Your task to perform on an android device: toggle pop-ups in chrome Image 0: 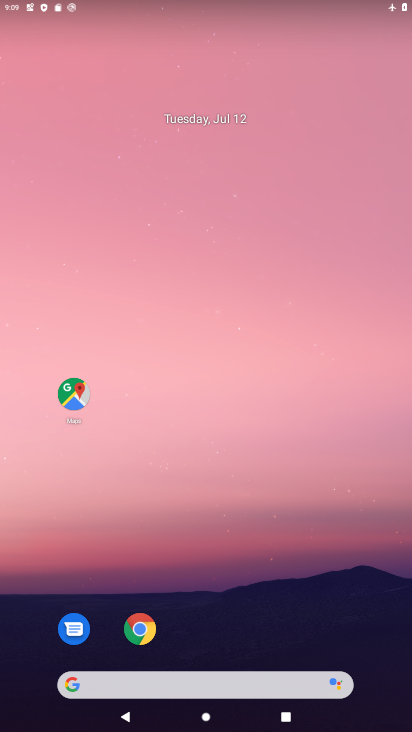
Step 0: drag from (179, 631) to (184, 192)
Your task to perform on an android device: toggle pop-ups in chrome Image 1: 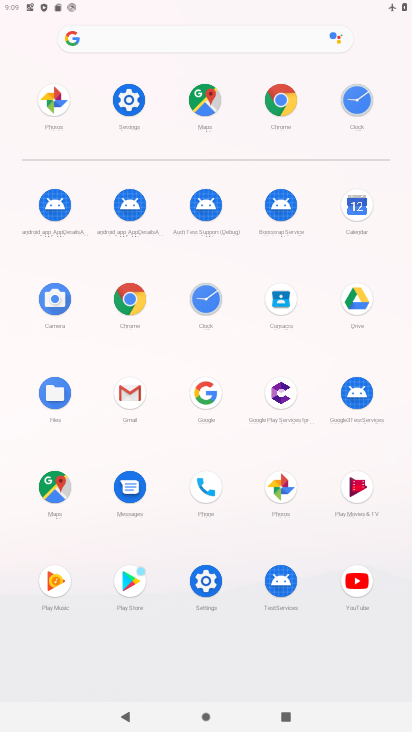
Step 1: click (114, 93)
Your task to perform on an android device: toggle pop-ups in chrome Image 2: 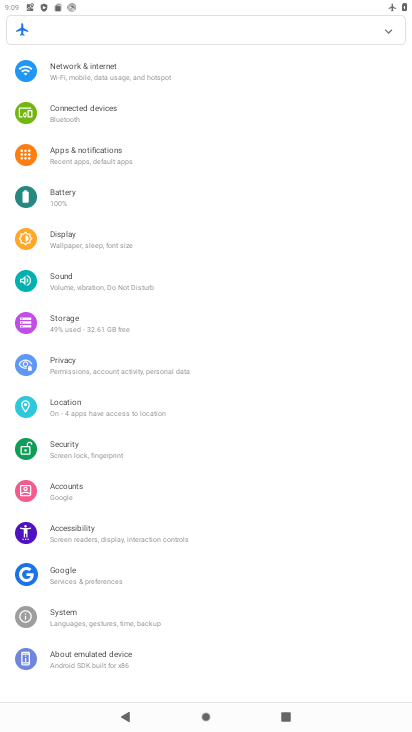
Step 2: press home button
Your task to perform on an android device: toggle pop-ups in chrome Image 3: 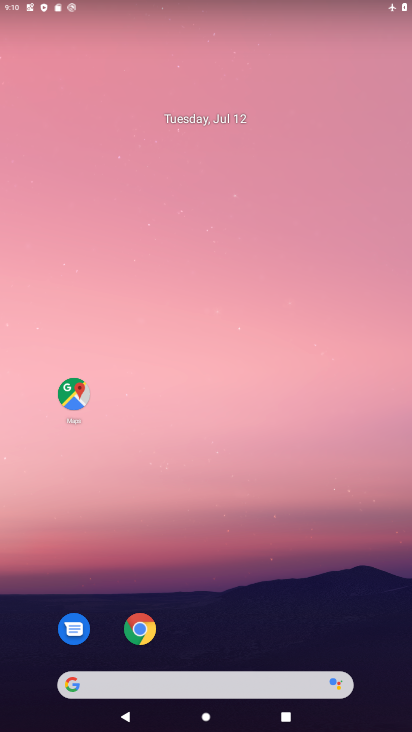
Step 3: drag from (237, 616) to (235, 295)
Your task to perform on an android device: toggle pop-ups in chrome Image 4: 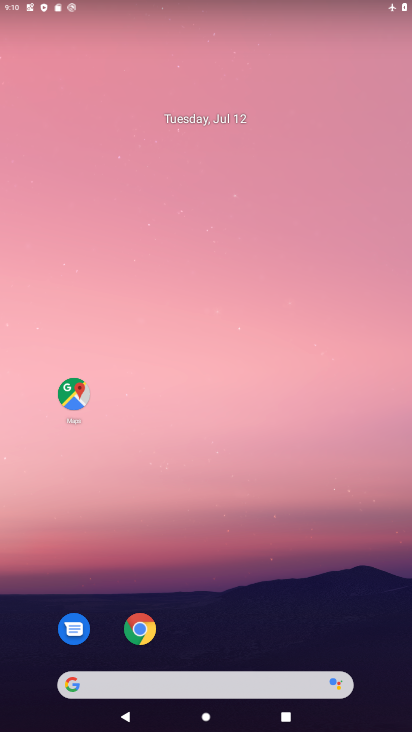
Step 4: drag from (222, 606) to (229, 157)
Your task to perform on an android device: toggle pop-ups in chrome Image 5: 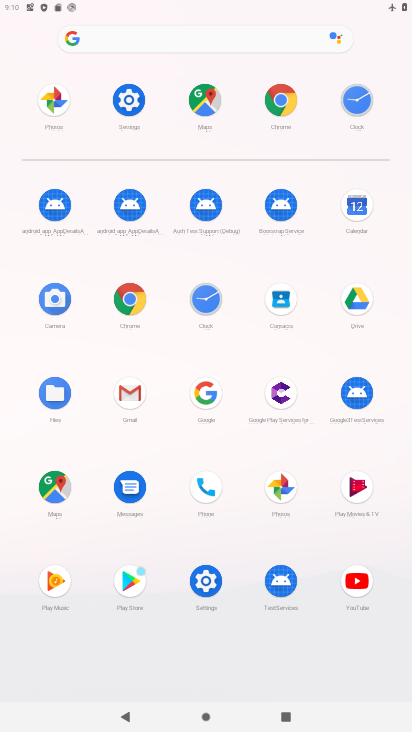
Step 5: click (298, 99)
Your task to perform on an android device: toggle pop-ups in chrome Image 6: 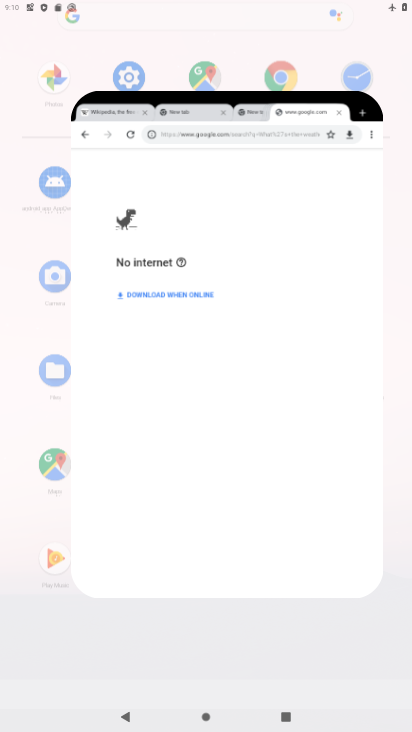
Step 6: click (287, 96)
Your task to perform on an android device: toggle pop-ups in chrome Image 7: 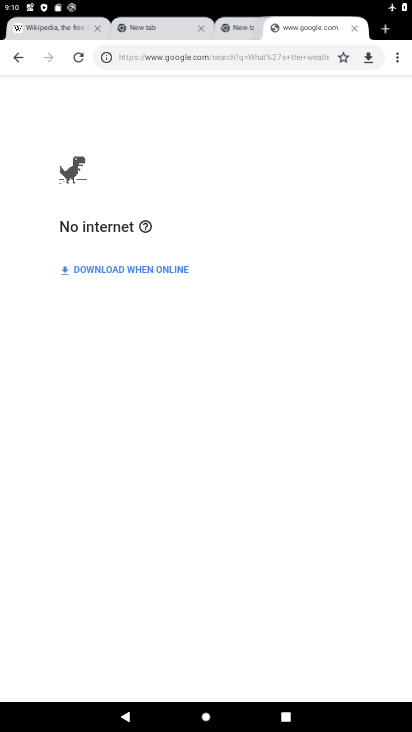
Step 7: click (391, 56)
Your task to perform on an android device: toggle pop-ups in chrome Image 8: 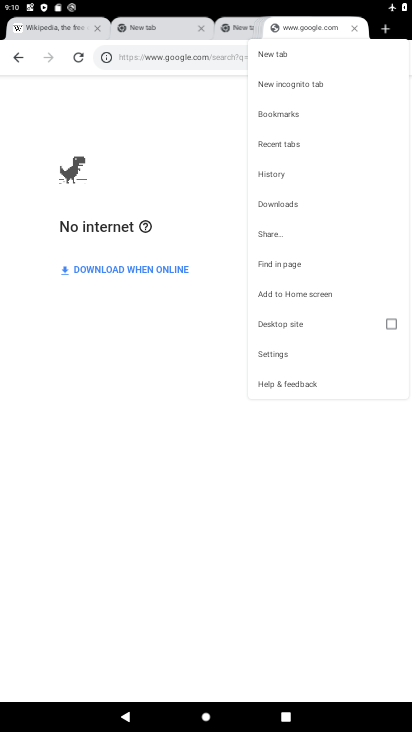
Step 8: click (300, 350)
Your task to perform on an android device: toggle pop-ups in chrome Image 9: 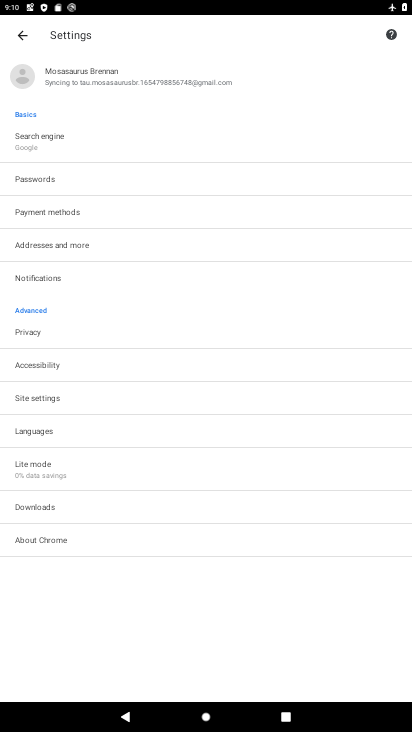
Step 9: click (63, 397)
Your task to perform on an android device: toggle pop-ups in chrome Image 10: 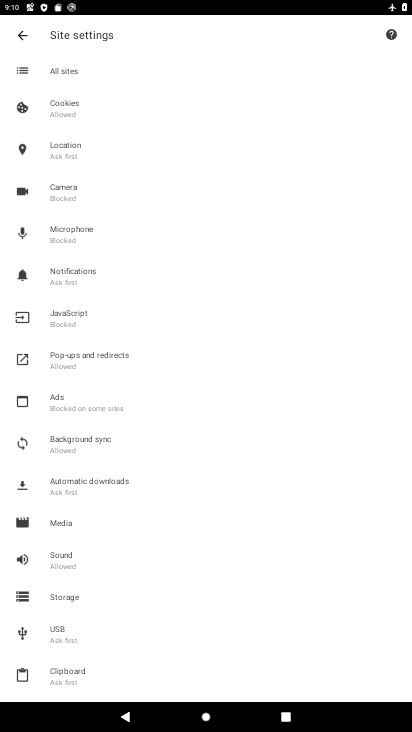
Step 10: click (102, 347)
Your task to perform on an android device: toggle pop-ups in chrome Image 11: 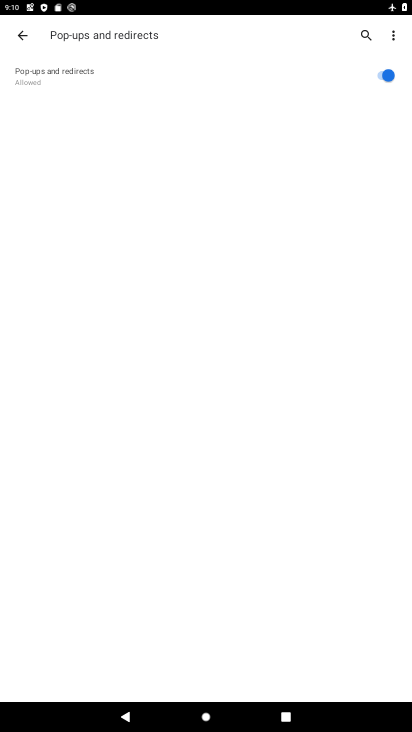
Step 11: click (375, 76)
Your task to perform on an android device: toggle pop-ups in chrome Image 12: 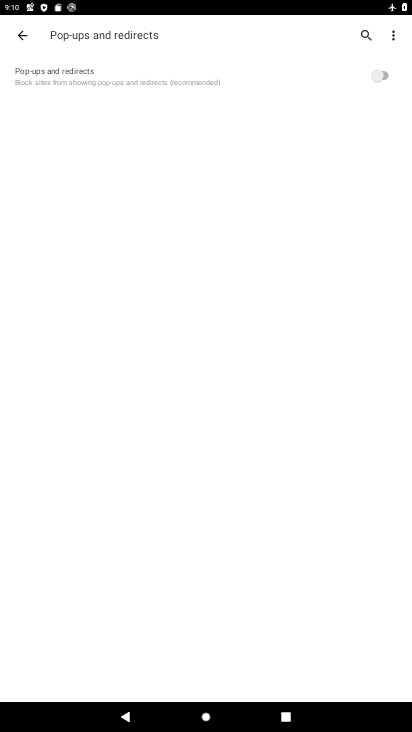
Step 12: task complete